Your task to perform on an android device: Open eBay Image 0: 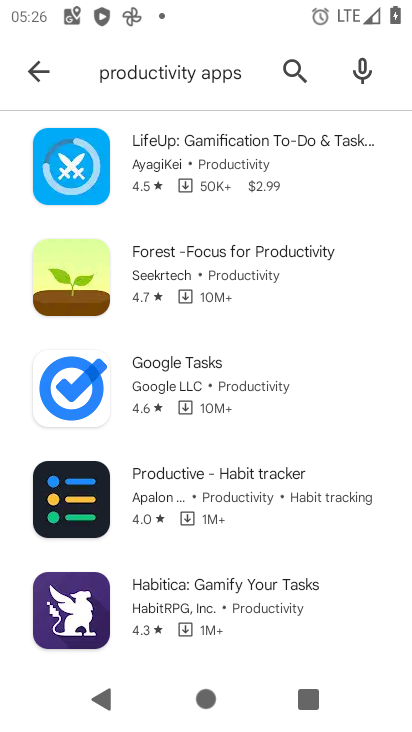
Step 0: press home button
Your task to perform on an android device: Open eBay Image 1: 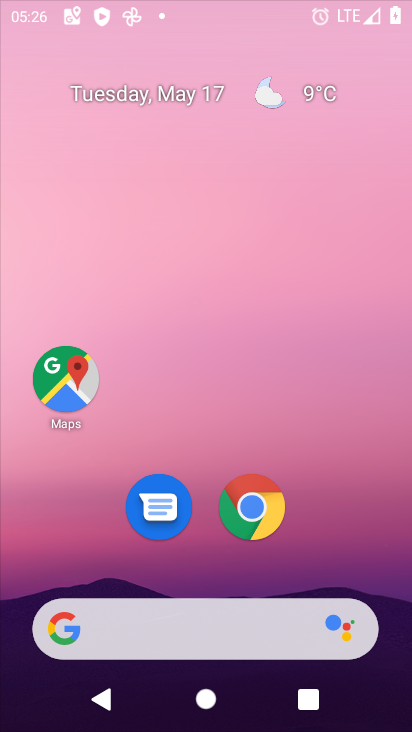
Step 1: click (242, 520)
Your task to perform on an android device: Open eBay Image 2: 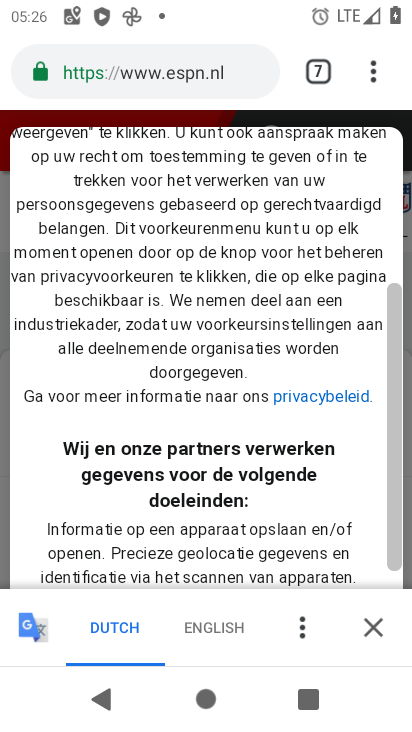
Step 2: click (318, 70)
Your task to perform on an android device: Open eBay Image 3: 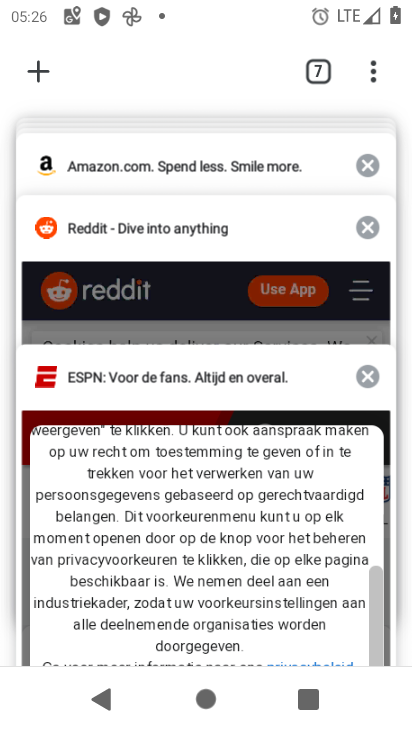
Step 3: click (38, 76)
Your task to perform on an android device: Open eBay Image 4: 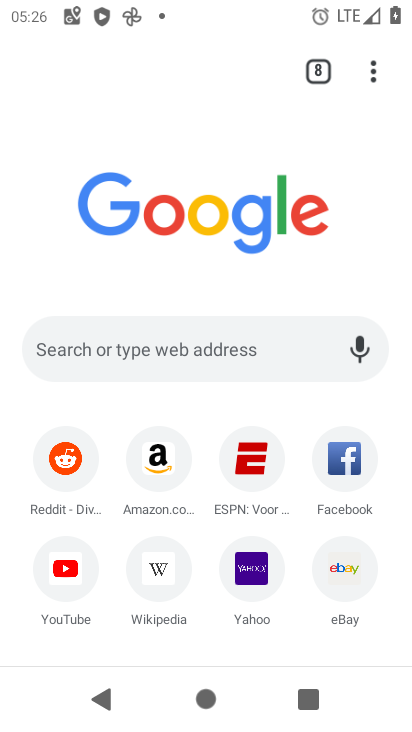
Step 4: click (344, 570)
Your task to perform on an android device: Open eBay Image 5: 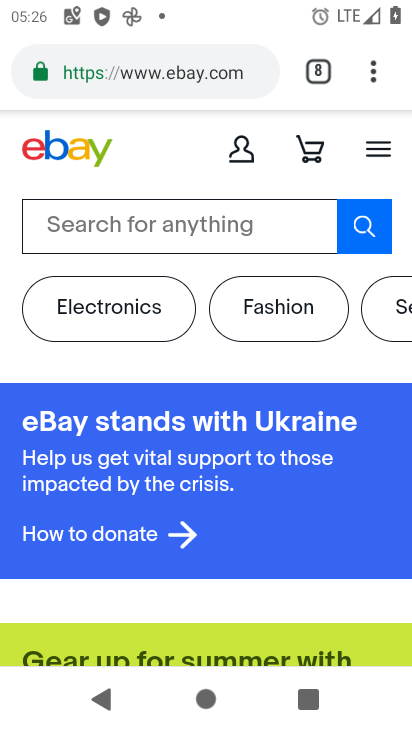
Step 5: task complete